Your task to perform on an android device: turn off location Image 0: 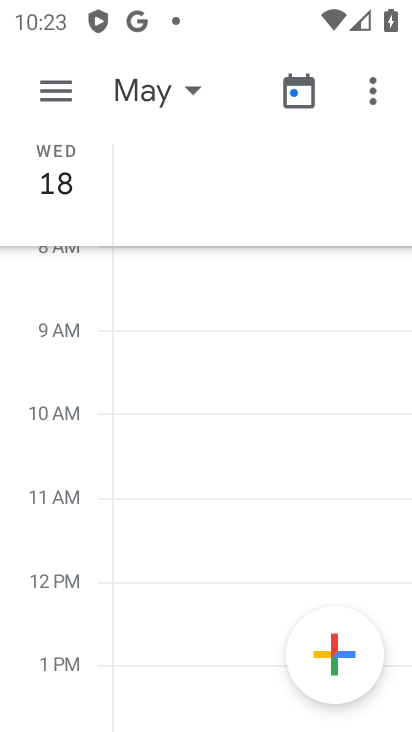
Step 0: press home button
Your task to perform on an android device: turn off location Image 1: 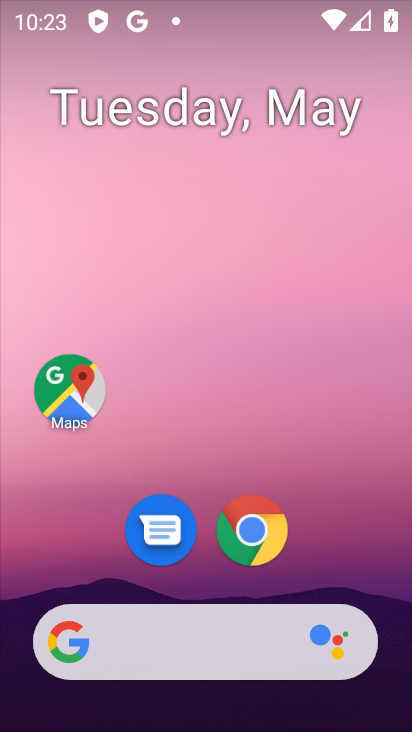
Step 1: drag from (359, 545) to (284, 51)
Your task to perform on an android device: turn off location Image 2: 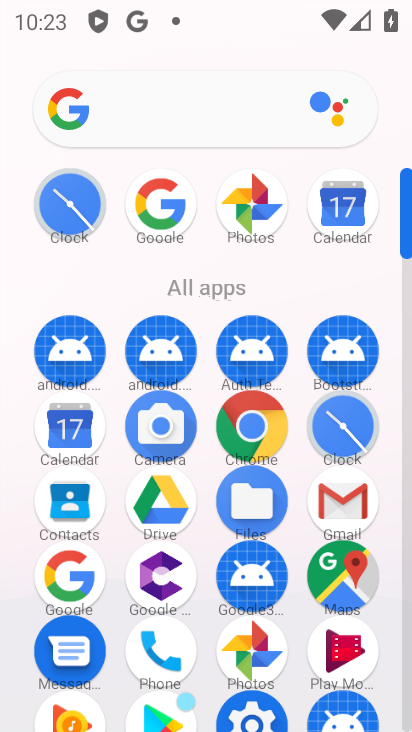
Step 2: drag from (244, 718) to (73, 314)
Your task to perform on an android device: turn off location Image 3: 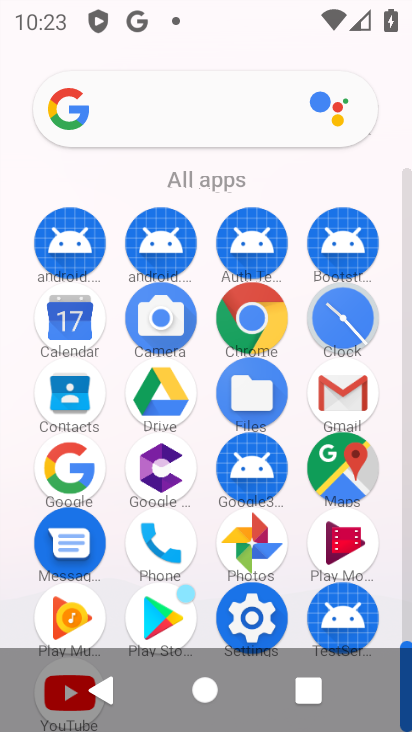
Step 3: click (264, 593)
Your task to perform on an android device: turn off location Image 4: 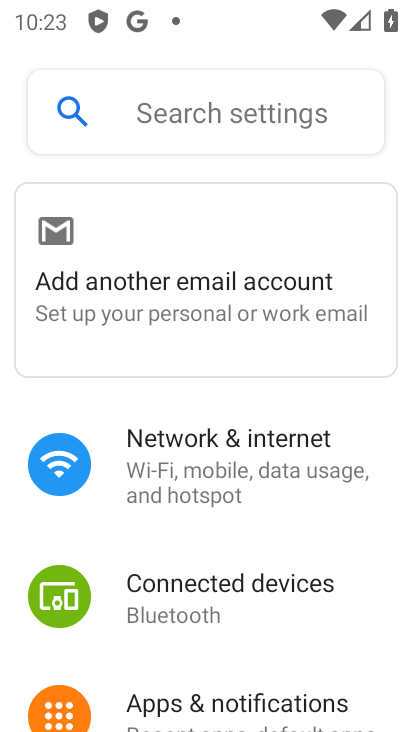
Step 4: drag from (249, 624) to (202, 196)
Your task to perform on an android device: turn off location Image 5: 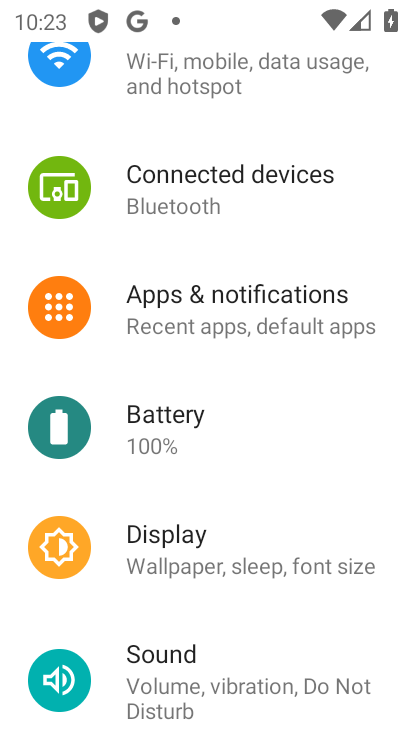
Step 5: drag from (258, 638) to (229, 185)
Your task to perform on an android device: turn off location Image 6: 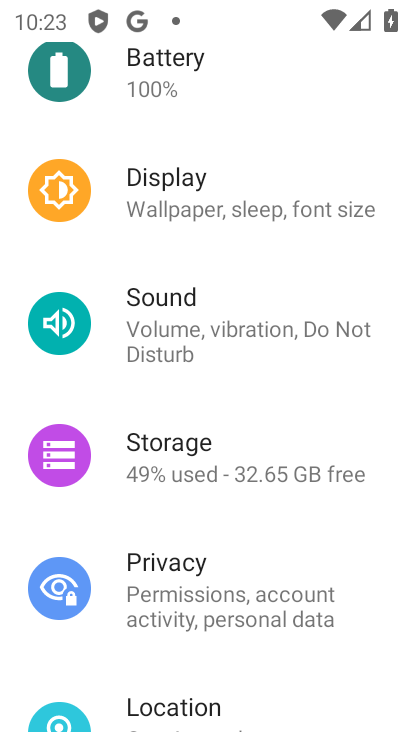
Step 6: click (207, 688)
Your task to perform on an android device: turn off location Image 7: 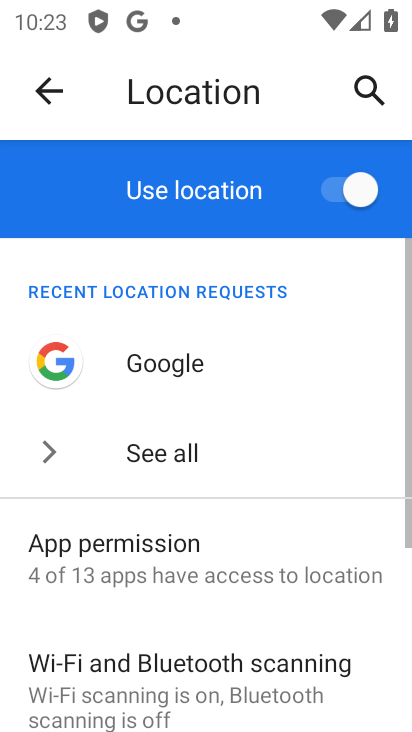
Step 7: click (345, 199)
Your task to perform on an android device: turn off location Image 8: 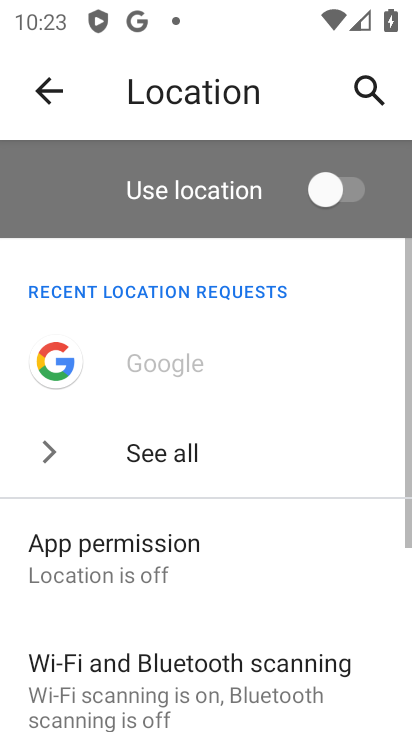
Step 8: task complete